Your task to perform on an android device: turn pop-ups on in chrome Image 0: 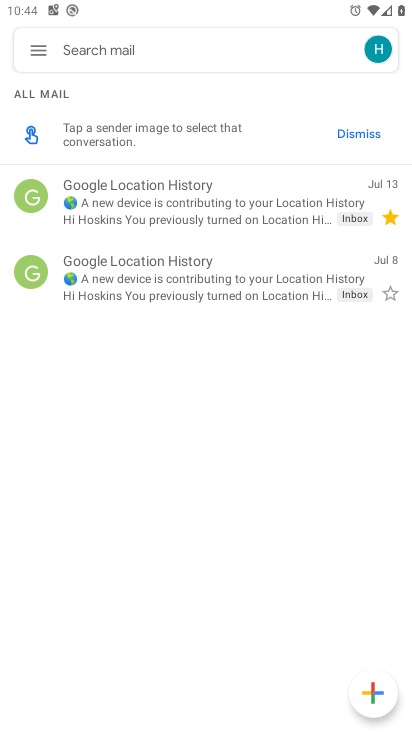
Step 0: press home button
Your task to perform on an android device: turn pop-ups on in chrome Image 1: 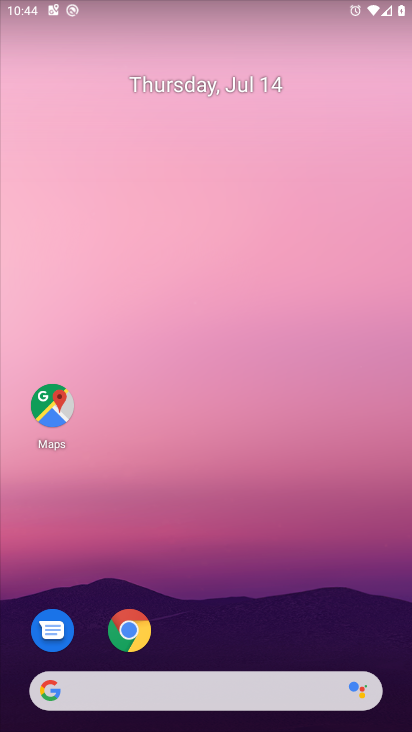
Step 1: drag from (52, 606) to (184, 317)
Your task to perform on an android device: turn pop-ups on in chrome Image 2: 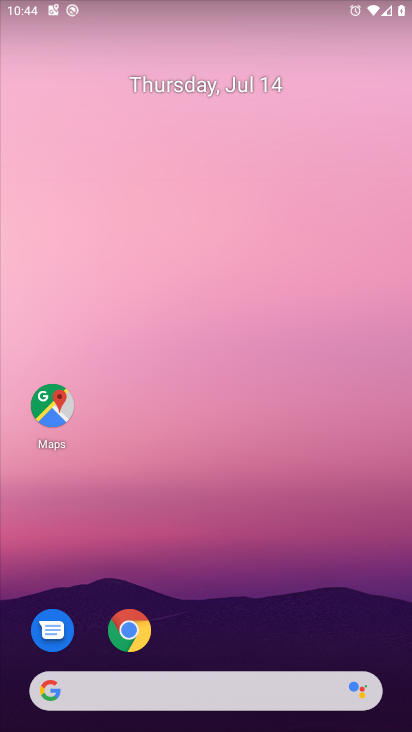
Step 2: click (119, 630)
Your task to perform on an android device: turn pop-ups on in chrome Image 3: 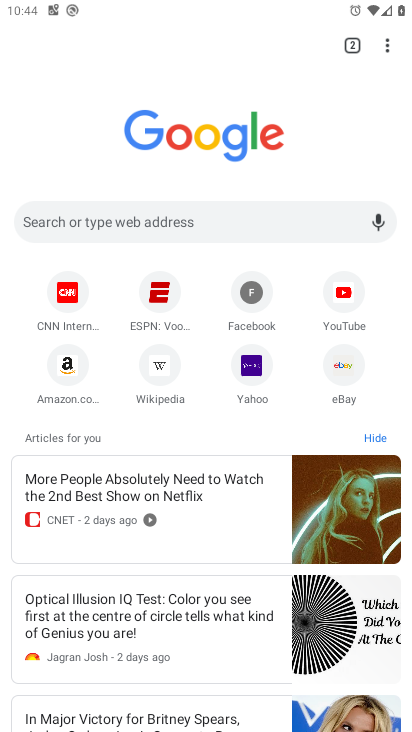
Step 3: click (378, 30)
Your task to perform on an android device: turn pop-ups on in chrome Image 4: 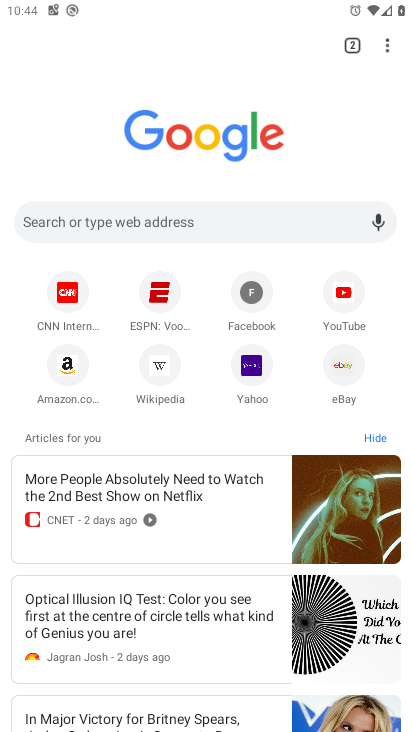
Step 4: click (394, 48)
Your task to perform on an android device: turn pop-ups on in chrome Image 5: 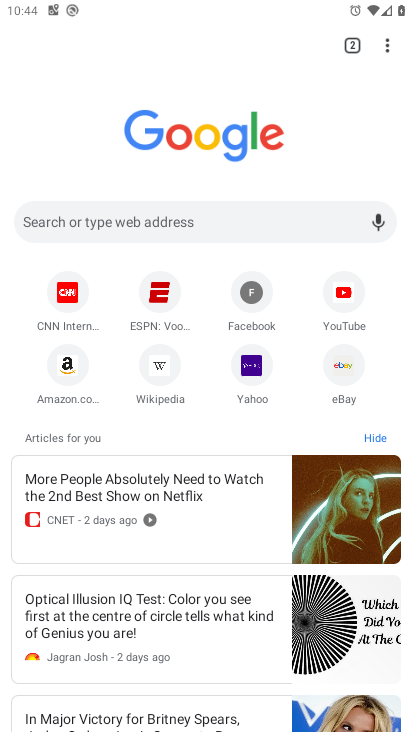
Step 5: click (385, 41)
Your task to perform on an android device: turn pop-ups on in chrome Image 6: 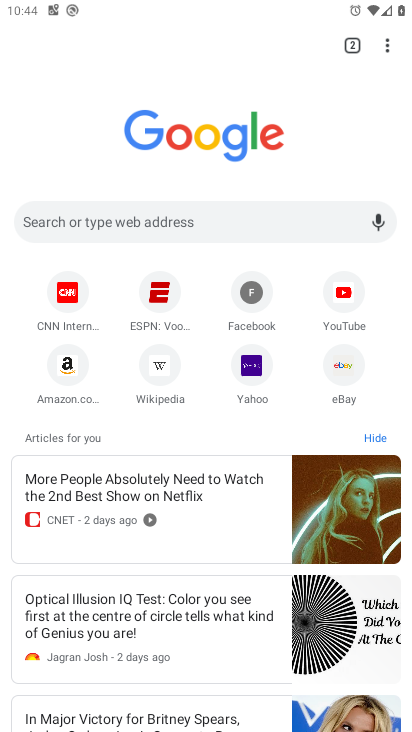
Step 6: click (388, 47)
Your task to perform on an android device: turn pop-ups on in chrome Image 7: 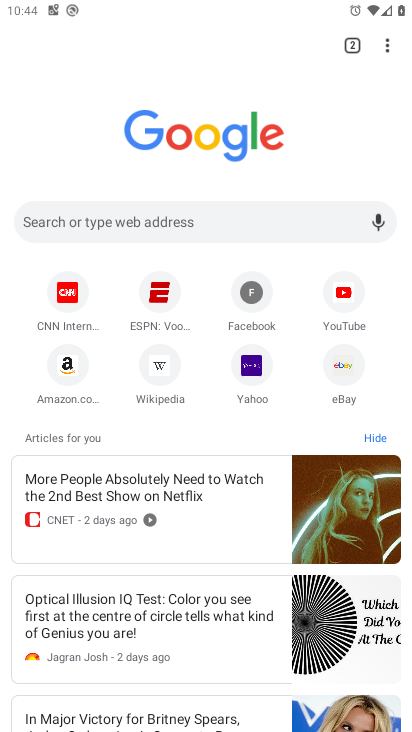
Step 7: click (382, 48)
Your task to perform on an android device: turn pop-ups on in chrome Image 8: 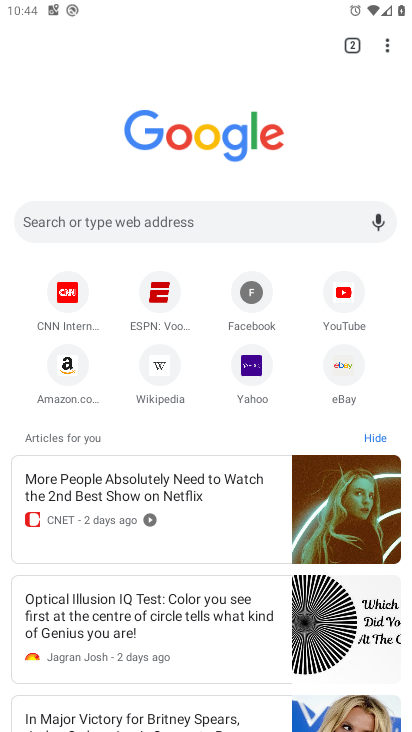
Step 8: click (386, 46)
Your task to perform on an android device: turn pop-ups on in chrome Image 9: 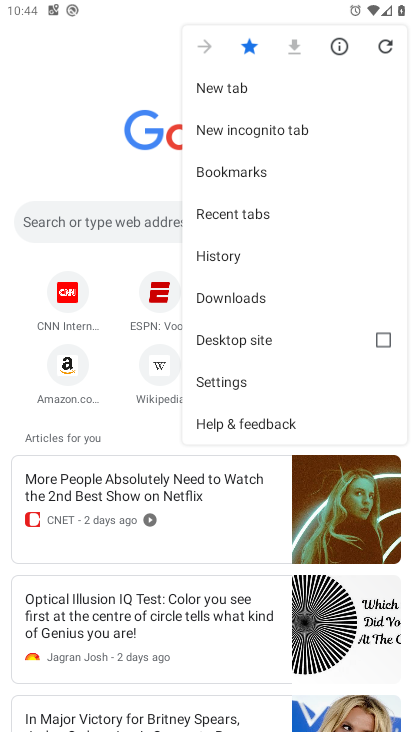
Step 9: click (247, 386)
Your task to perform on an android device: turn pop-ups on in chrome Image 10: 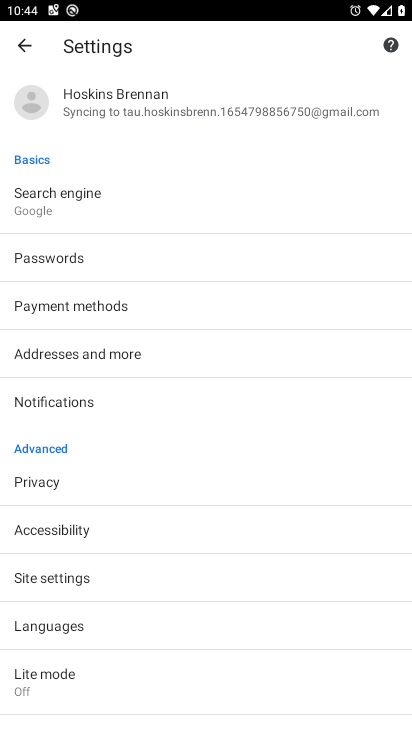
Step 10: click (67, 558)
Your task to perform on an android device: turn pop-ups on in chrome Image 11: 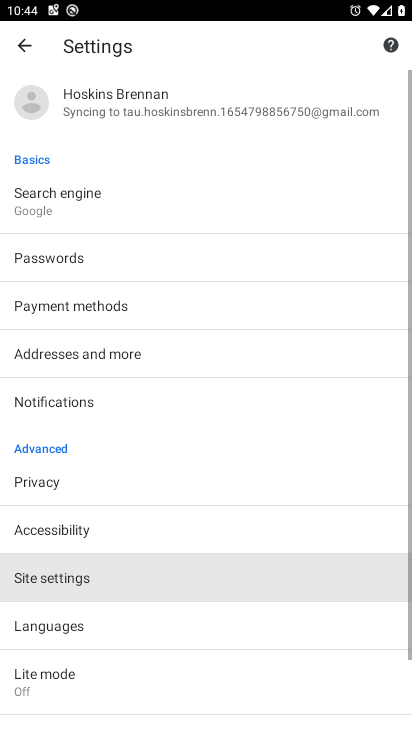
Step 11: click (68, 576)
Your task to perform on an android device: turn pop-ups on in chrome Image 12: 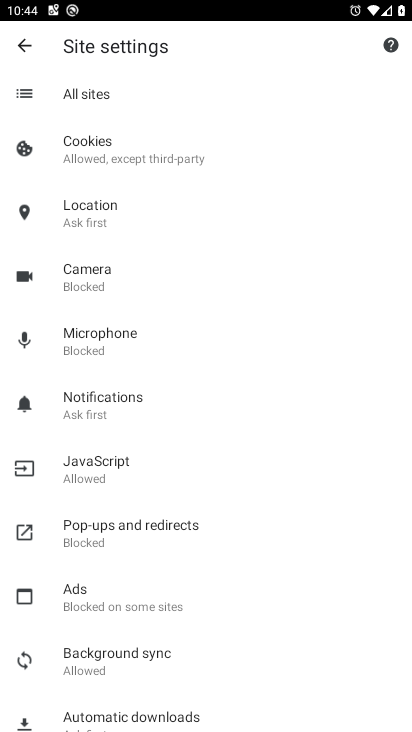
Step 12: click (138, 537)
Your task to perform on an android device: turn pop-ups on in chrome Image 13: 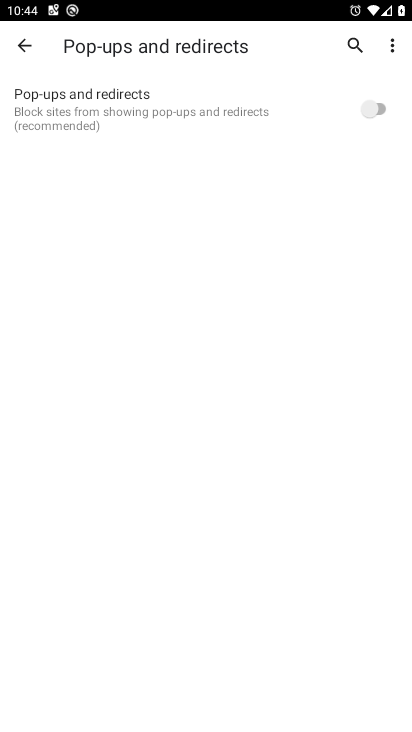
Step 13: click (369, 111)
Your task to perform on an android device: turn pop-ups on in chrome Image 14: 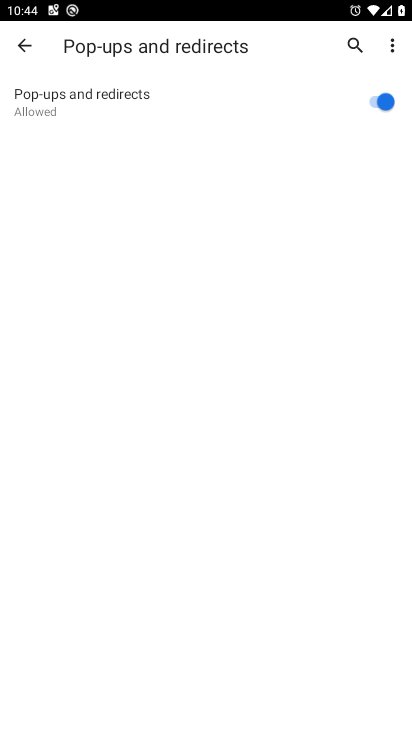
Step 14: task complete